Your task to perform on an android device: change keyboard looks Image 0: 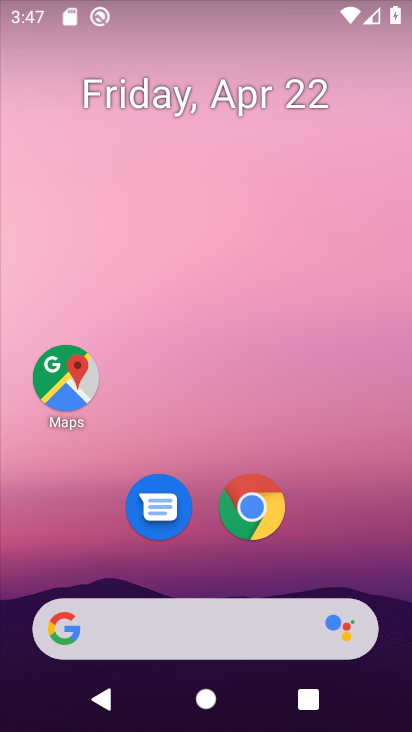
Step 0: drag from (399, 627) to (340, 85)
Your task to perform on an android device: change keyboard looks Image 1: 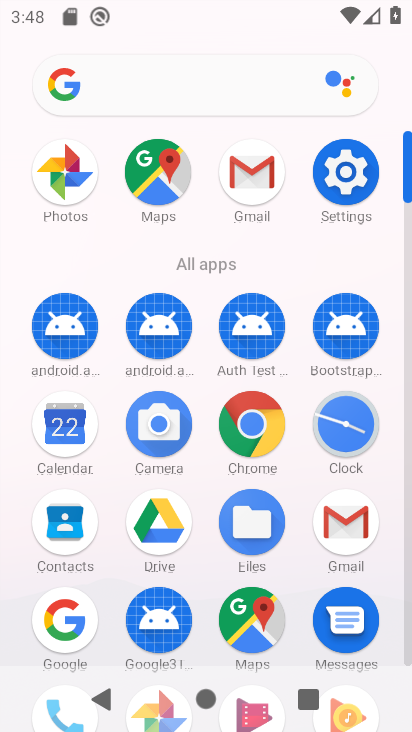
Step 1: click (405, 651)
Your task to perform on an android device: change keyboard looks Image 2: 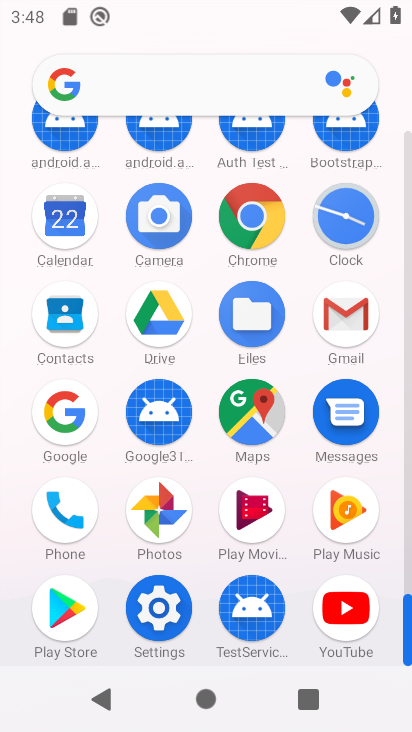
Step 2: click (157, 609)
Your task to perform on an android device: change keyboard looks Image 3: 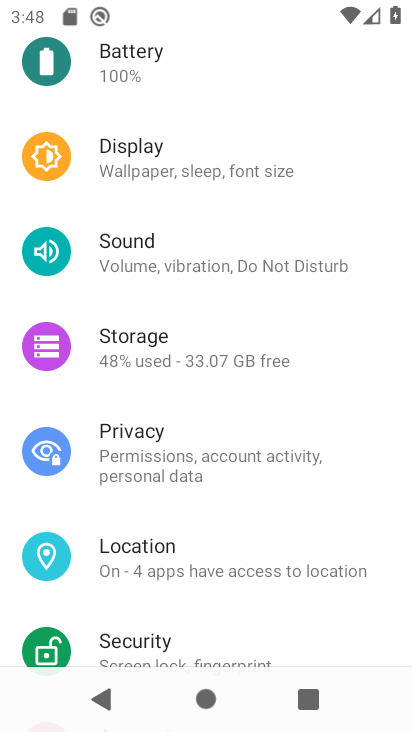
Step 3: drag from (364, 603) to (360, 185)
Your task to perform on an android device: change keyboard looks Image 4: 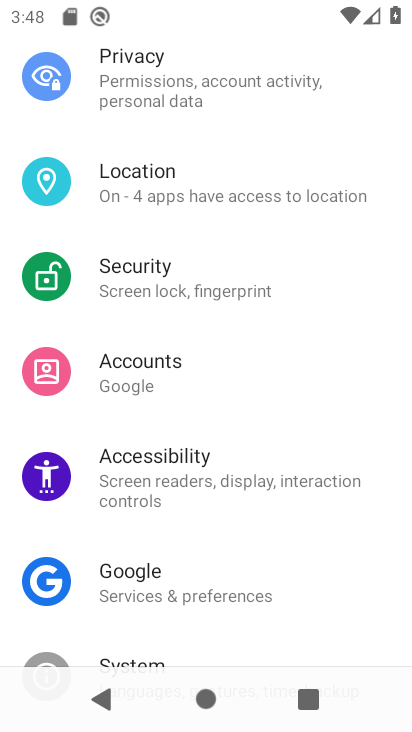
Step 4: drag from (358, 587) to (367, 237)
Your task to perform on an android device: change keyboard looks Image 5: 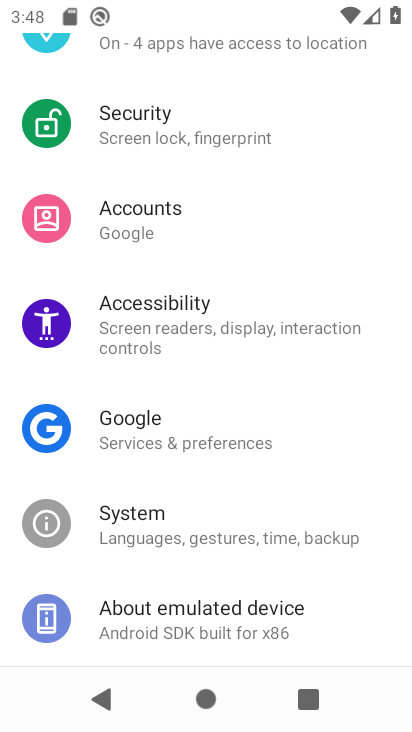
Step 5: click (141, 527)
Your task to perform on an android device: change keyboard looks Image 6: 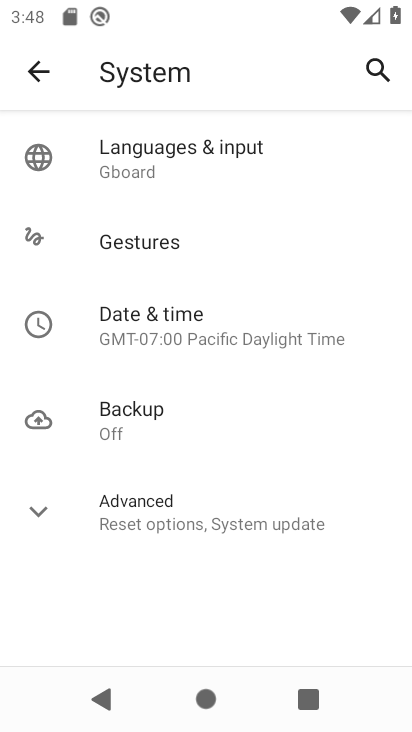
Step 6: click (150, 142)
Your task to perform on an android device: change keyboard looks Image 7: 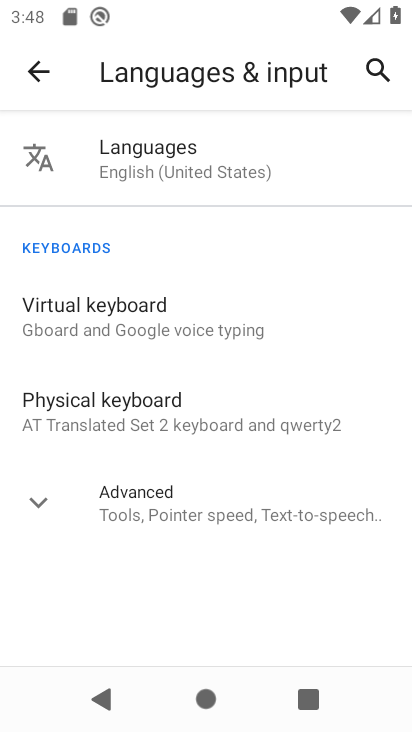
Step 7: click (123, 417)
Your task to perform on an android device: change keyboard looks Image 8: 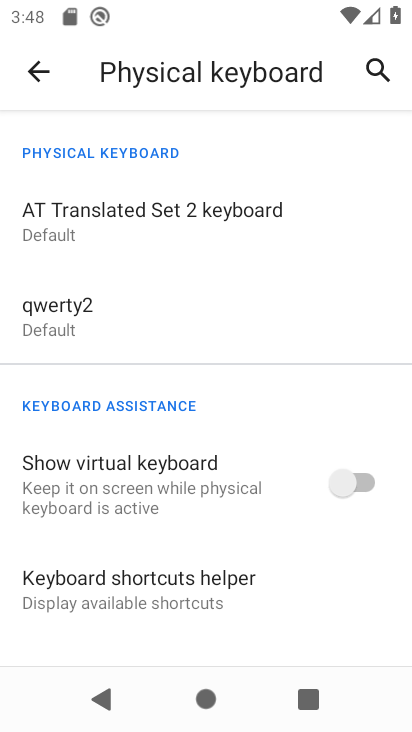
Step 8: drag from (325, 588) to (376, 317)
Your task to perform on an android device: change keyboard looks Image 9: 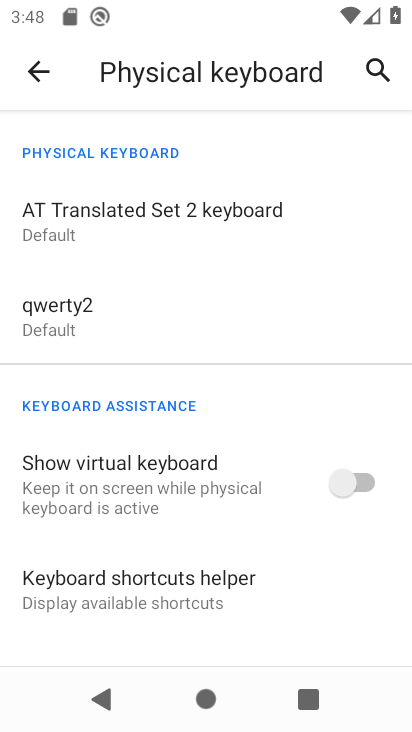
Step 9: click (56, 315)
Your task to perform on an android device: change keyboard looks Image 10: 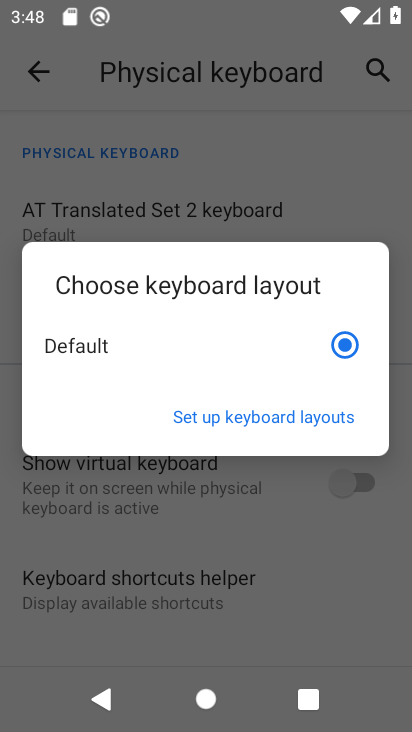
Step 10: click (273, 422)
Your task to perform on an android device: change keyboard looks Image 11: 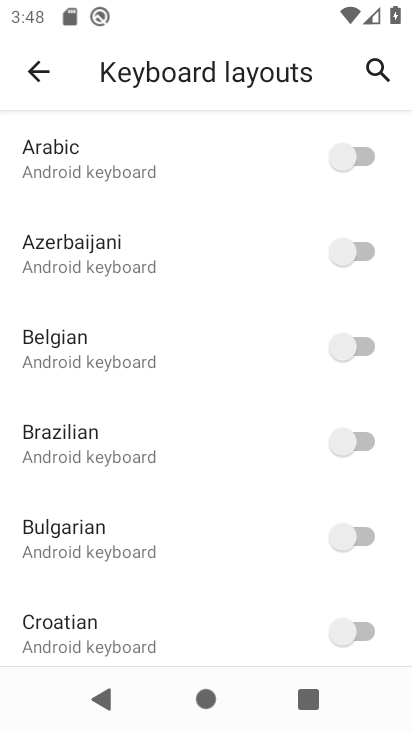
Step 11: drag from (245, 589) to (238, 200)
Your task to perform on an android device: change keyboard looks Image 12: 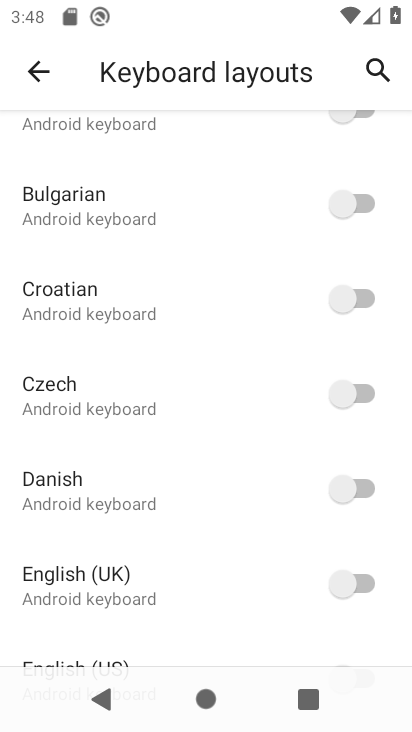
Step 12: drag from (190, 629) to (246, 235)
Your task to perform on an android device: change keyboard looks Image 13: 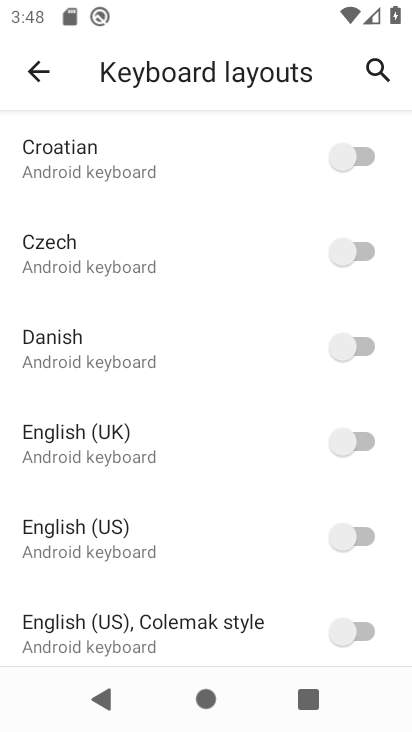
Step 13: click (363, 537)
Your task to perform on an android device: change keyboard looks Image 14: 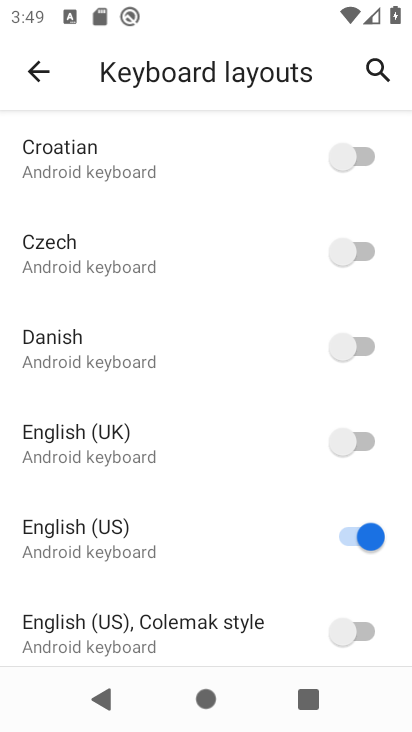
Step 14: task complete